Your task to perform on an android device: Is it going to rain this weekend? Image 0: 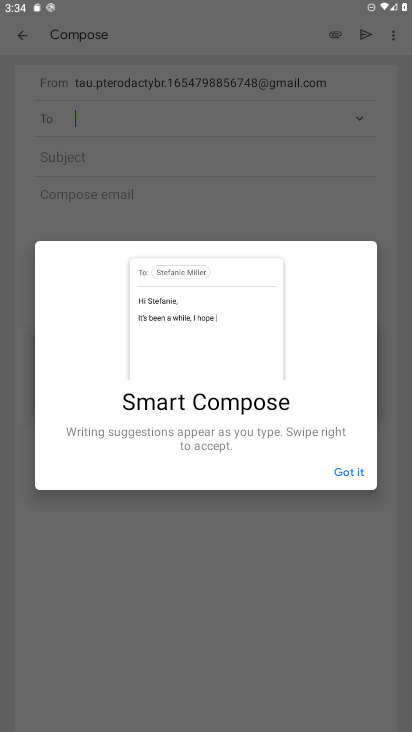
Step 0: press home button
Your task to perform on an android device: Is it going to rain this weekend? Image 1: 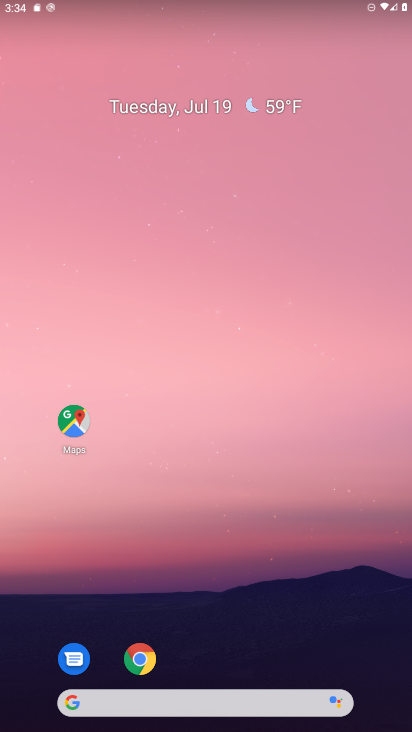
Step 1: drag from (244, 699) to (268, 113)
Your task to perform on an android device: Is it going to rain this weekend? Image 2: 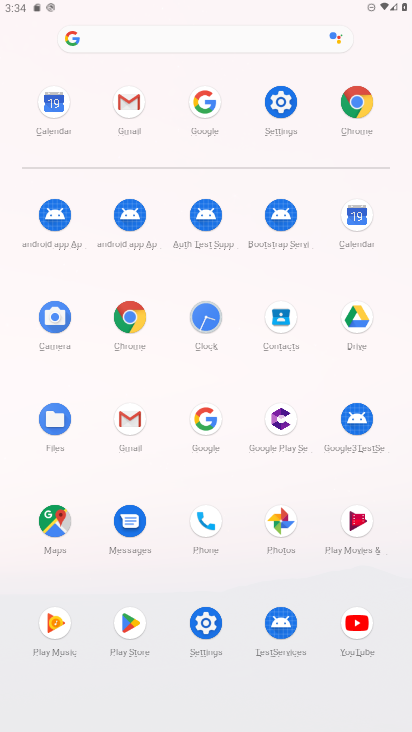
Step 2: click (205, 418)
Your task to perform on an android device: Is it going to rain this weekend? Image 3: 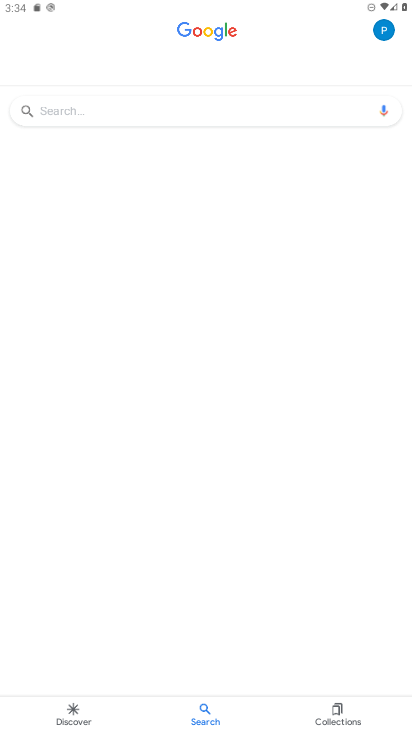
Step 3: click (213, 94)
Your task to perform on an android device: Is it going to rain this weekend? Image 4: 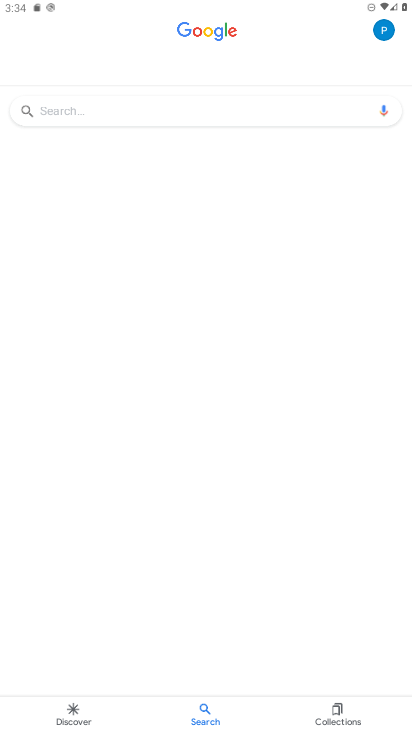
Step 4: click (245, 104)
Your task to perform on an android device: Is it going to rain this weekend? Image 5: 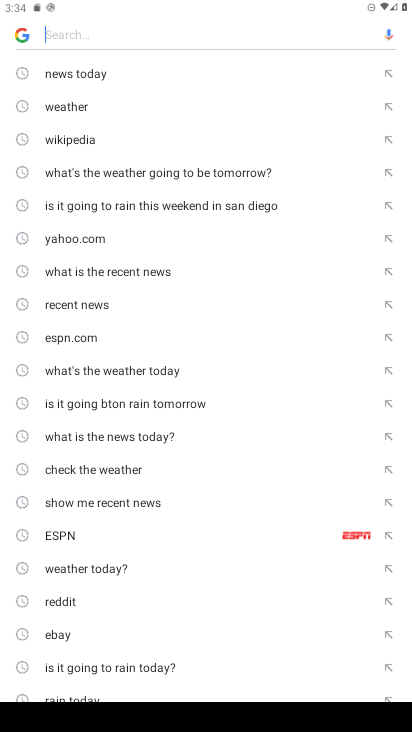
Step 5: type "Is it going to rain this weekend?"
Your task to perform on an android device: Is it going to rain this weekend? Image 6: 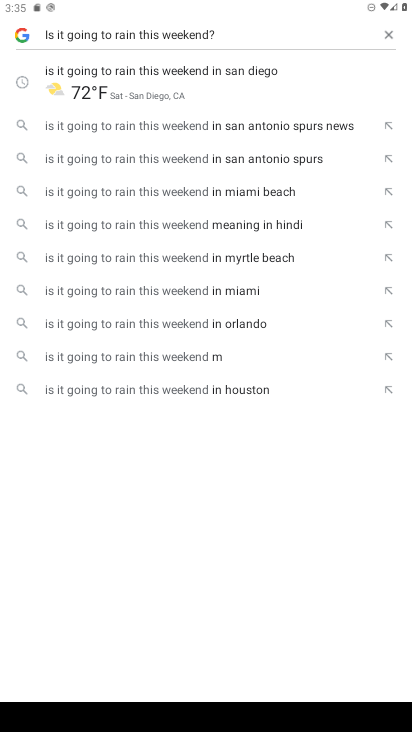
Step 6: click (153, 94)
Your task to perform on an android device: Is it going to rain this weekend? Image 7: 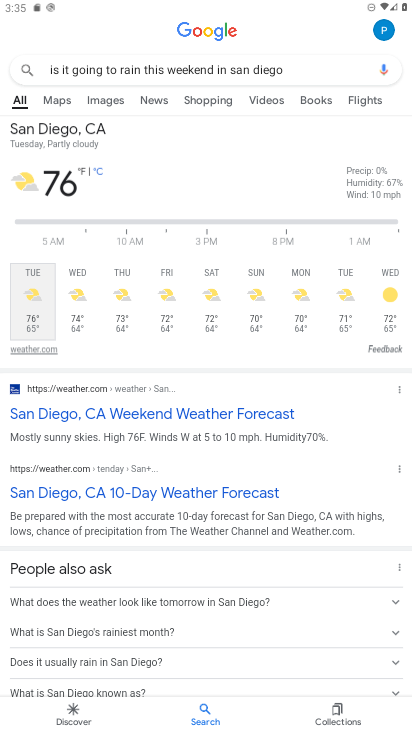
Step 7: click (208, 301)
Your task to perform on an android device: Is it going to rain this weekend? Image 8: 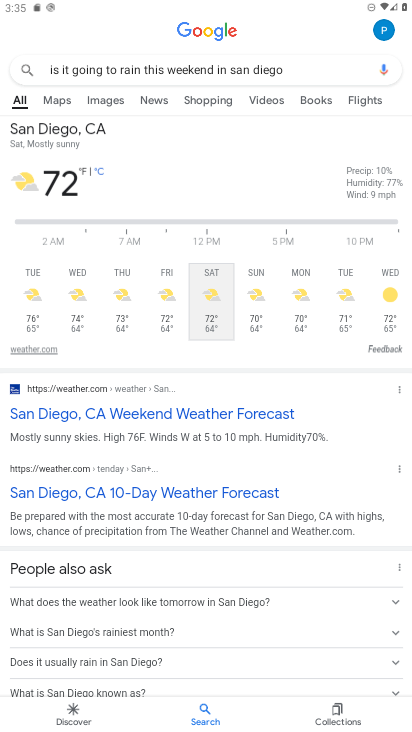
Step 8: task complete